Your task to perform on an android device: What's the weather today? Image 0: 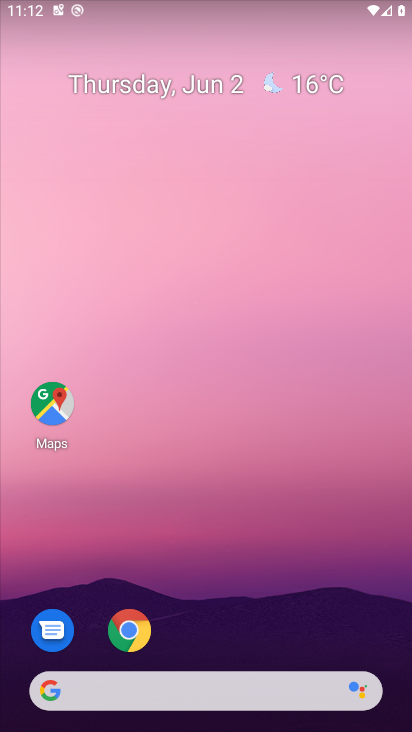
Step 0: click (295, 86)
Your task to perform on an android device: What's the weather today? Image 1: 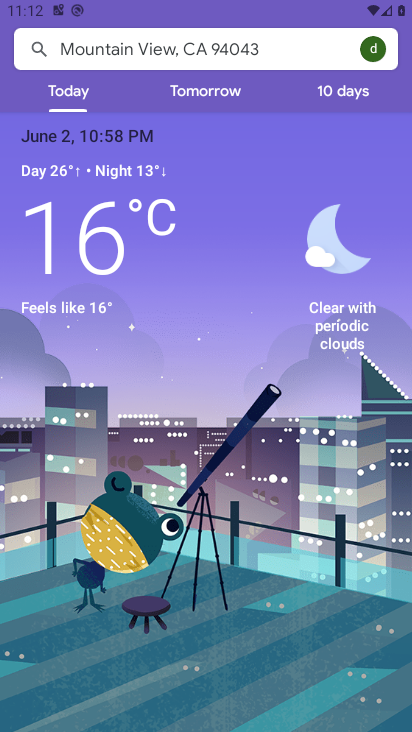
Step 1: task complete